Your task to perform on an android device: toggle show notifications on the lock screen Image 0: 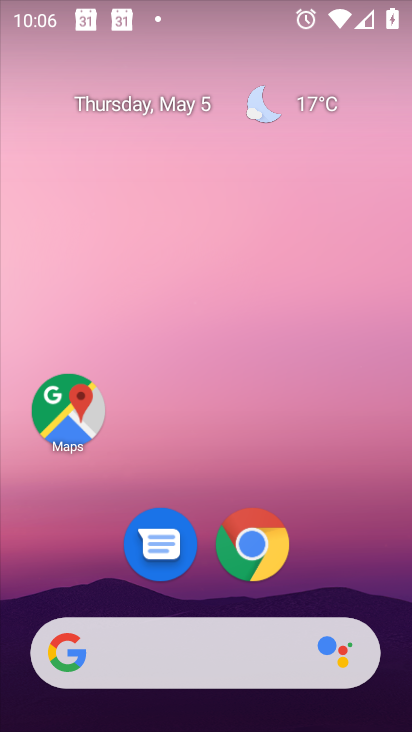
Step 0: drag from (365, 551) to (332, 223)
Your task to perform on an android device: toggle show notifications on the lock screen Image 1: 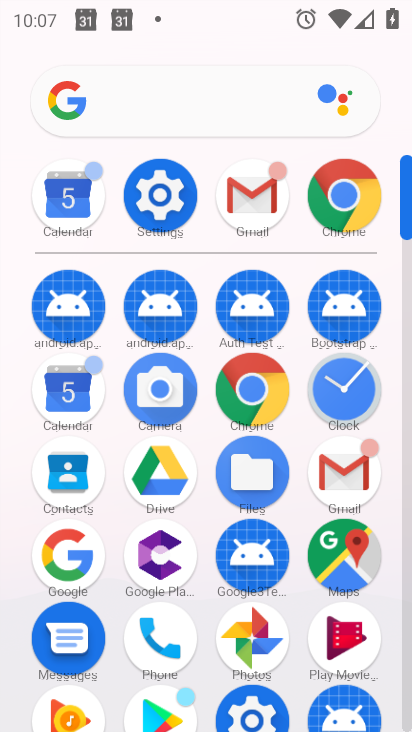
Step 1: click (148, 192)
Your task to perform on an android device: toggle show notifications on the lock screen Image 2: 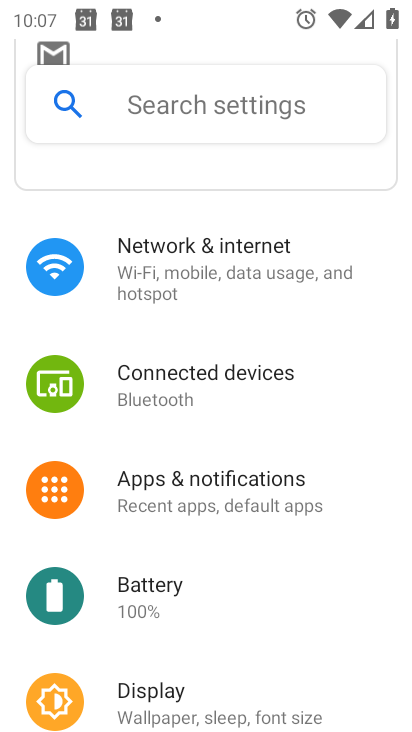
Step 2: drag from (241, 617) to (242, 557)
Your task to perform on an android device: toggle show notifications on the lock screen Image 3: 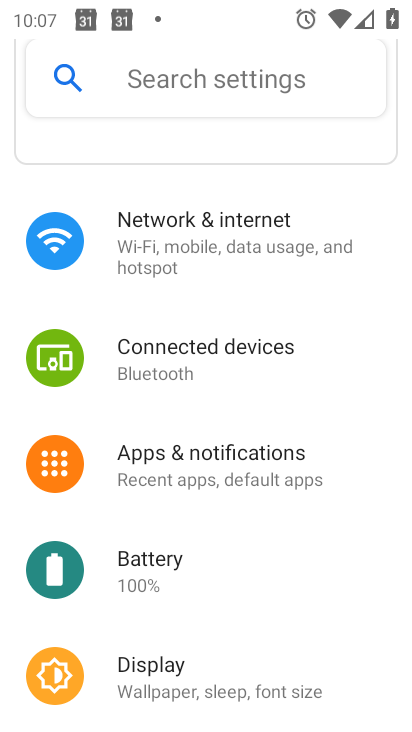
Step 3: click (269, 484)
Your task to perform on an android device: toggle show notifications on the lock screen Image 4: 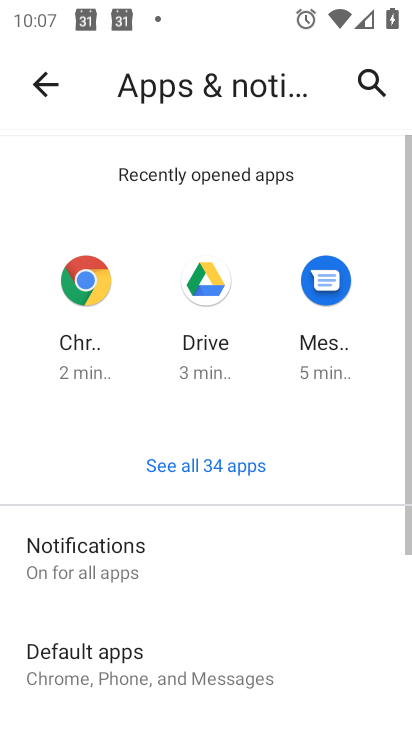
Step 4: drag from (238, 551) to (255, 302)
Your task to perform on an android device: toggle show notifications on the lock screen Image 5: 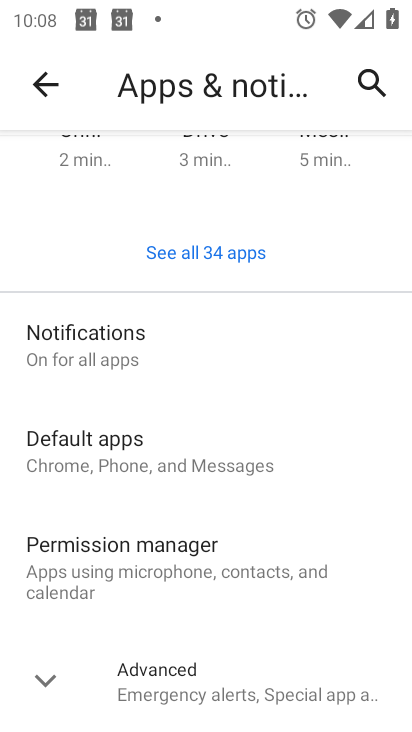
Step 5: click (158, 661)
Your task to perform on an android device: toggle show notifications on the lock screen Image 6: 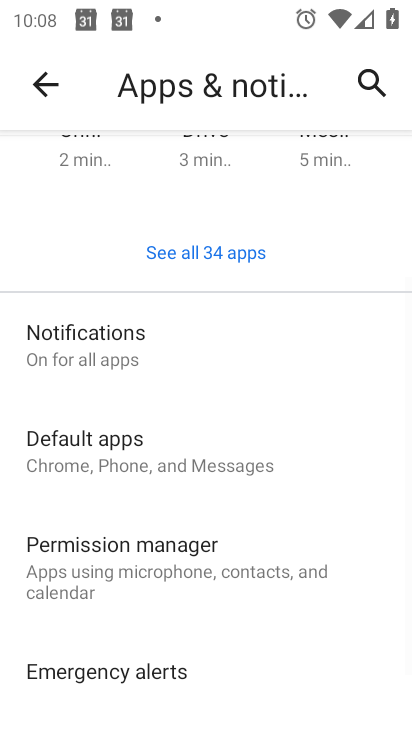
Step 6: drag from (189, 597) to (198, 516)
Your task to perform on an android device: toggle show notifications on the lock screen Image 7: 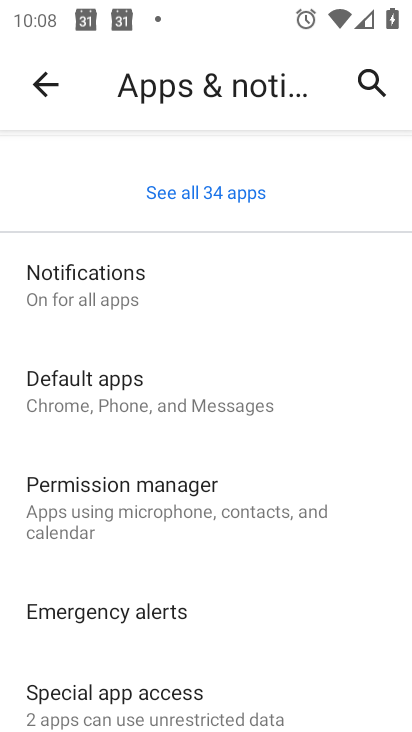
Step 7: click (161, 306)
Your task to perform on an android device: toggle show notifications on the lock screen Image 8: 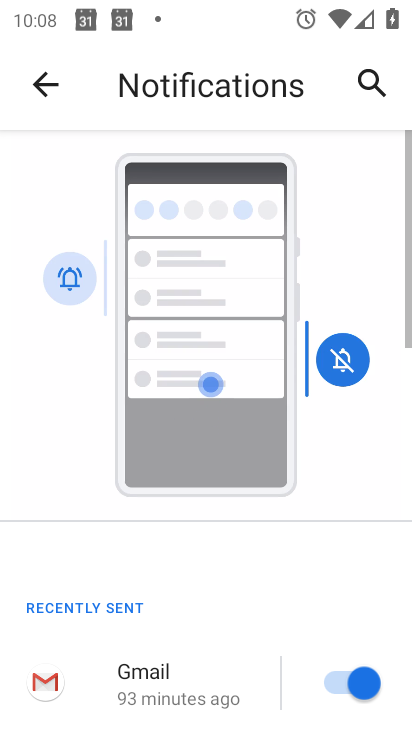
Step 8: drag from (173, 542) to (206, 267)
Your task to perform on an android device: toggle show notifications on the lock screen Image 9: 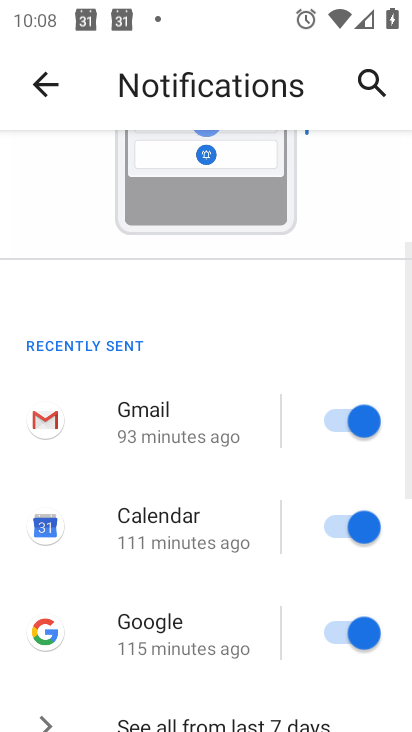
Step 9: drag from (233, 601) to (223, 221)
Your task to perform on an android device: toggle show notifications on the lock screen Image 10: 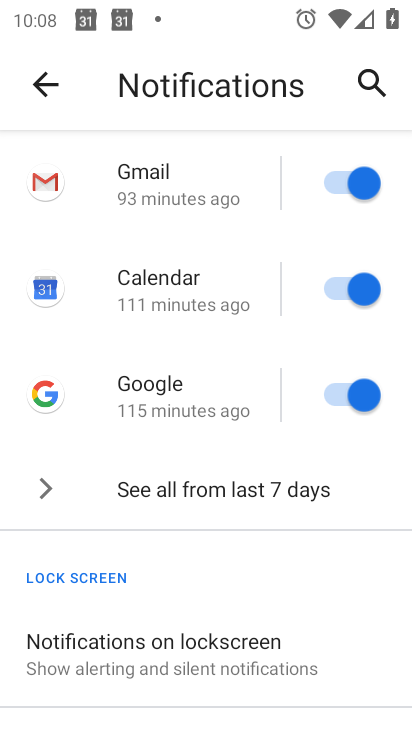
Step 10: click (196, 668)
Your task to perform on an android device: toggle show notifications on the lock screen Image 11: 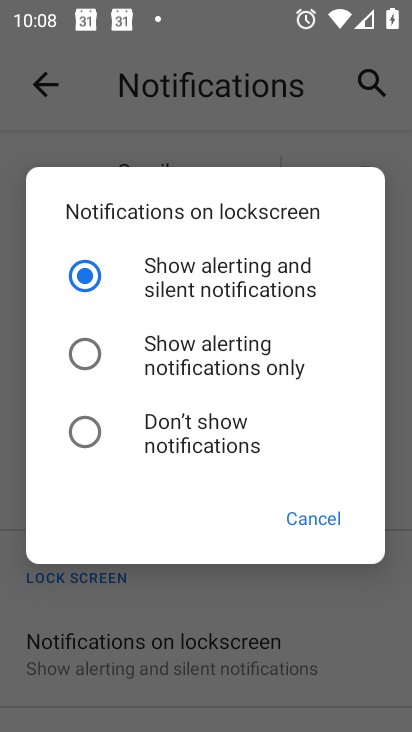
Step 11: click (160, 360)
Your task to perform on an android device: toggle show notifications on the lock screen Image 12: 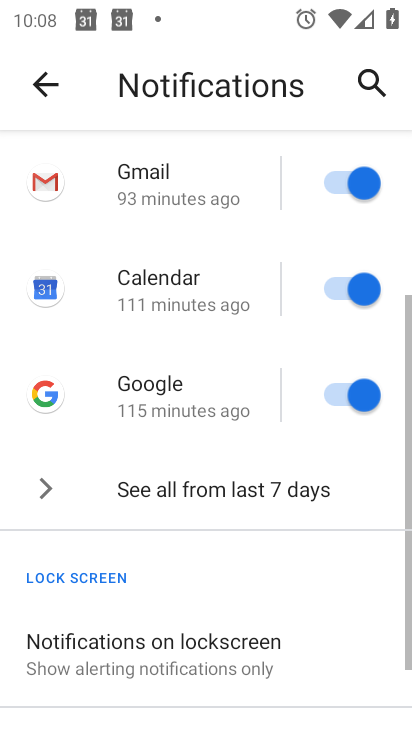
Step 12: task complete